Your task to perform on an android device: change the upload size in google photos Image 0: 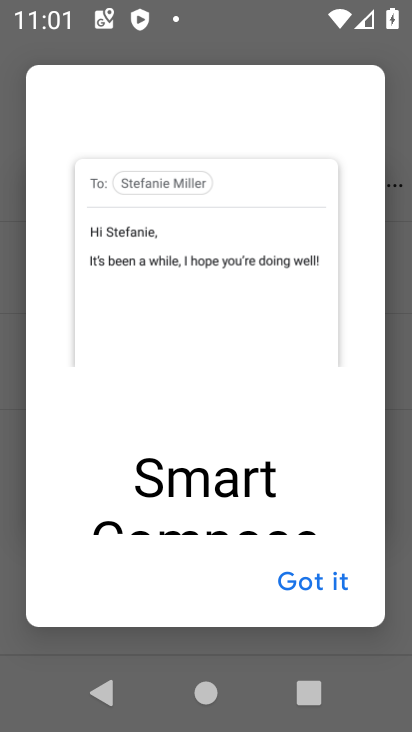
Step 0: press home button
Your task to perform on an android device: change the upload size in google photos Image 1: 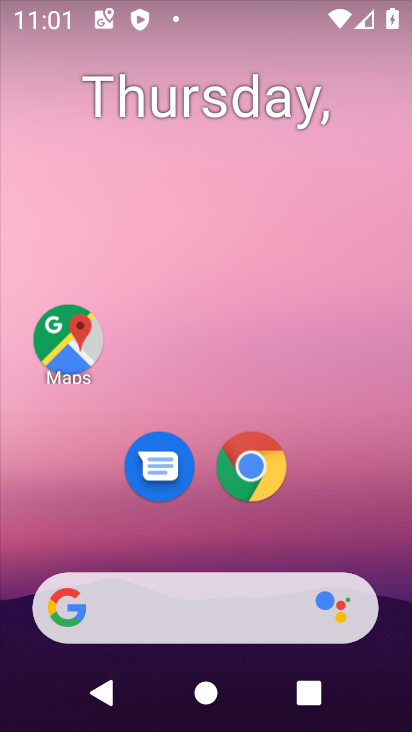
Step 1: drag from (250, 567) to (232, 5)
Your task to perform on an android device: change the upload size in google photos Image 2: 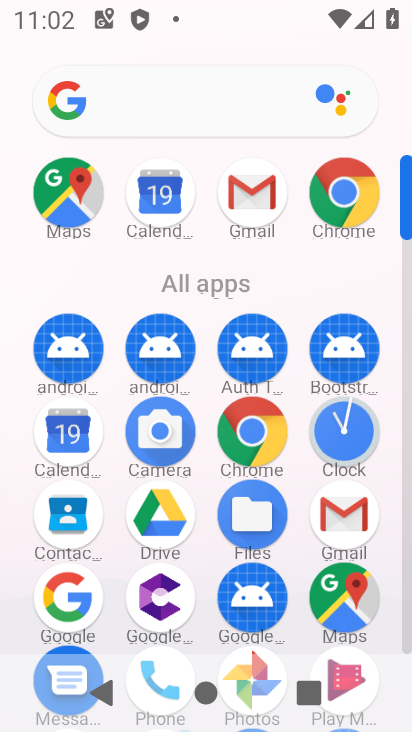
Step 2: click (251, 661)
Your task to perform on an android device: change the upload size in google photos Image 3: 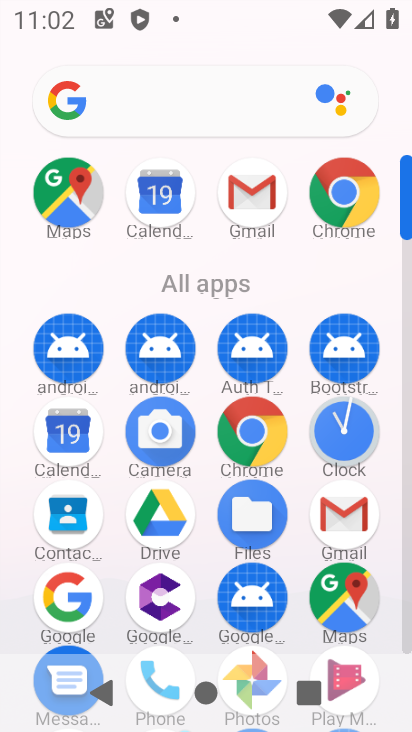
Step 3: drag from (215, 557) to (189, 336)
Your task to perform on an android device: change the upload size in google photos Image 4: 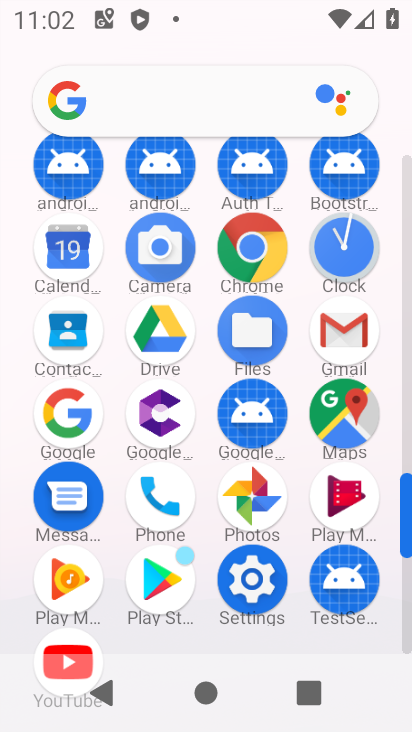
Step 4: click (253, 511)
Your task to perform on an android device: change the upload size in google photos Image 5: 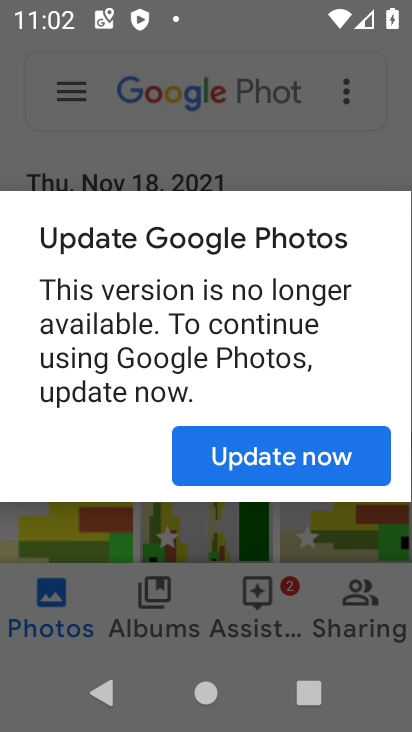
Step 5: click (289, 454)
Your task to perform on an android device: change the upload size in google photos Image 6: 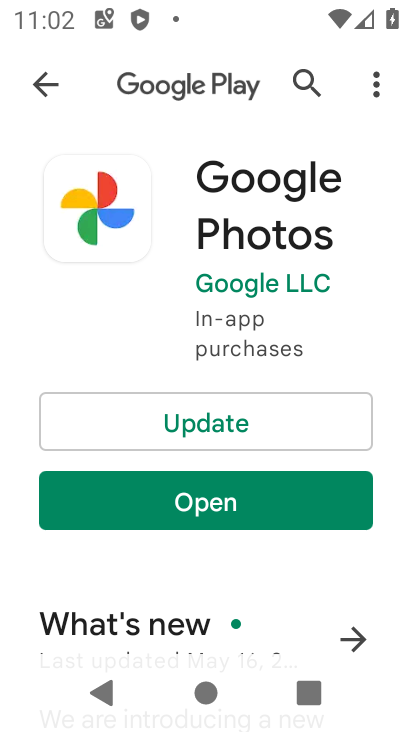
Step 6: click (229, 503)
Your task to perform on an android device: change the upload size in google photos Image 7: 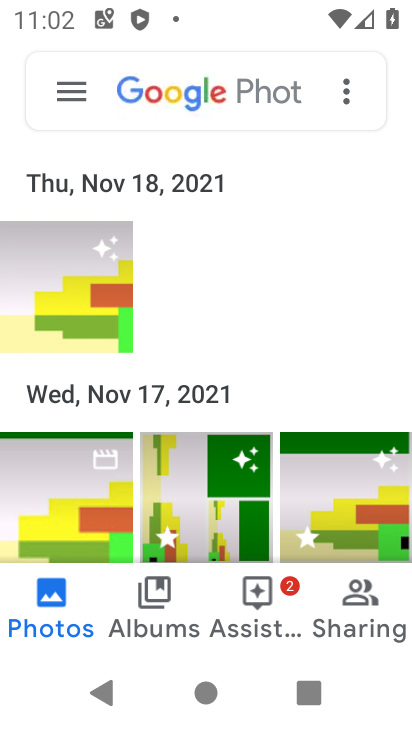
Step 7: click (55, 91)
Your task to perform on an android device: change the upload size in google photos Image 8: 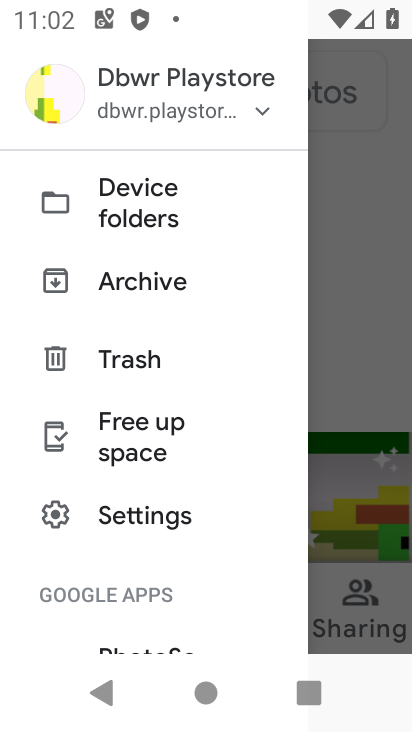
Step 8: click (124, 519)
Your task to perform on an android device: change the upload size in google photos Image 9: 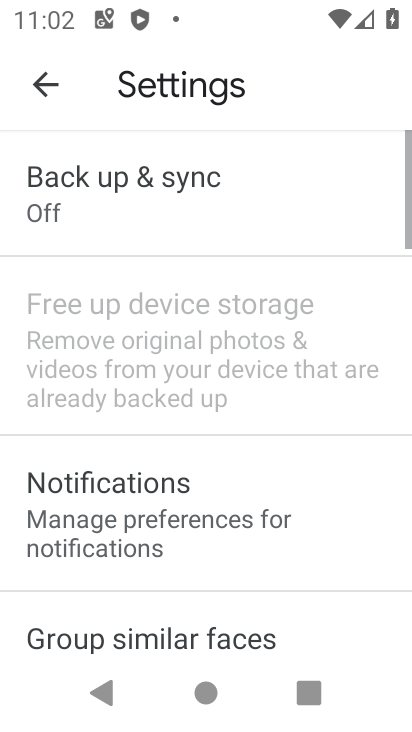
Step 9: click (122, 218)
Your task to perform on an android device: change the upload size in google photos Image 10: 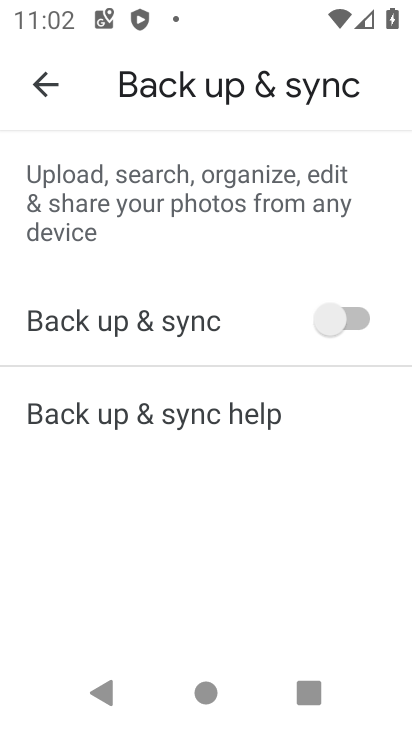
Step 10: click (338, 310)
Your task to perform on an android device: change the upload size in google photos Image 11: 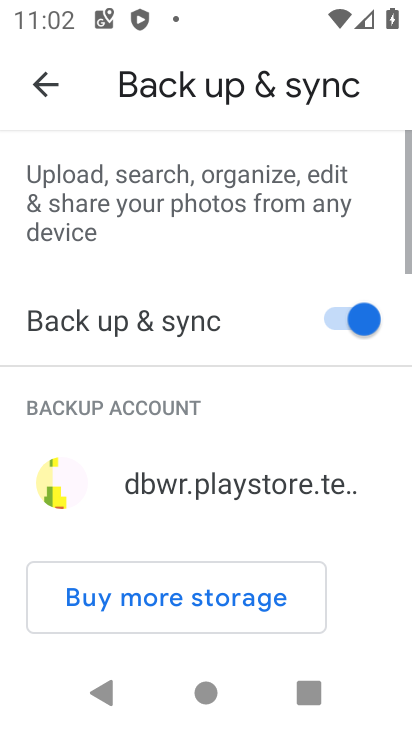
Step 11: drag from (218, 568) to (150, 133)
Your task to perform on an android device: change the upload size in google photos Image 12: 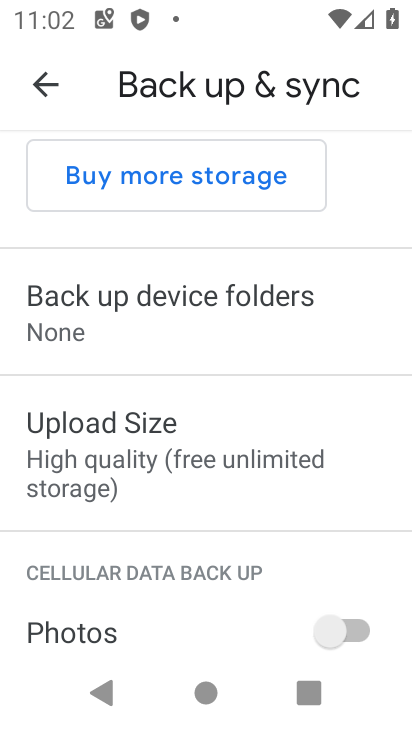
Step 12: click (144, 432)
Your task to perform on an android device: change the upload size in google photos Image 13: 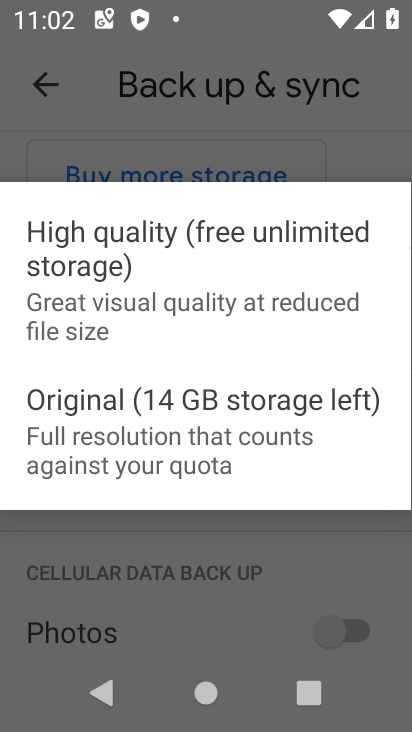
Step 13: click (141, 419)
Your task to perform on an android device: change the upload size in google photos Image 14: 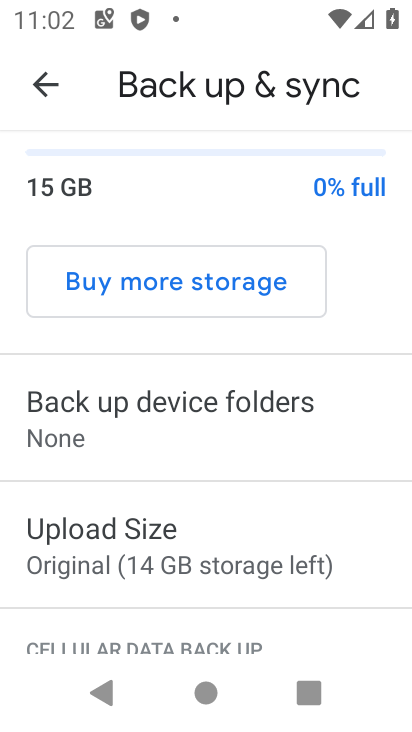
Step 14: task complete